Your task to perform on an android device: Open eBay Image 0: 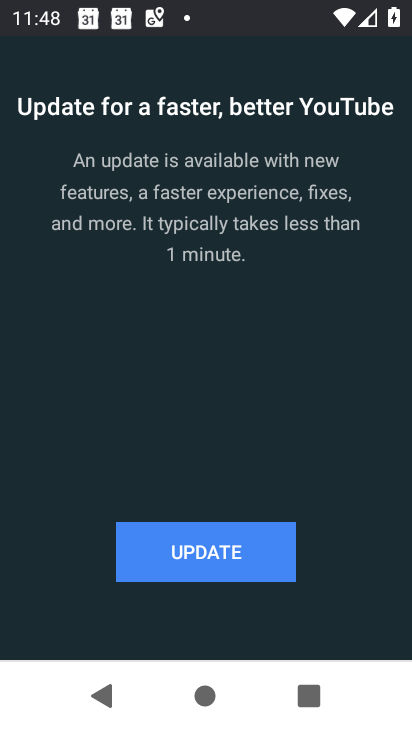
Step 0: press back button
Your task to perform on an android device: Open eBay Image 1: 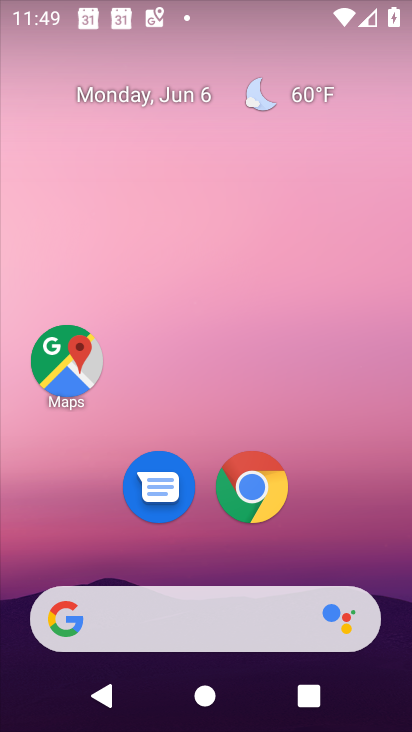
Step 1: click (260, 491)
Your task to perform on an android device: Open eBay Image 2: 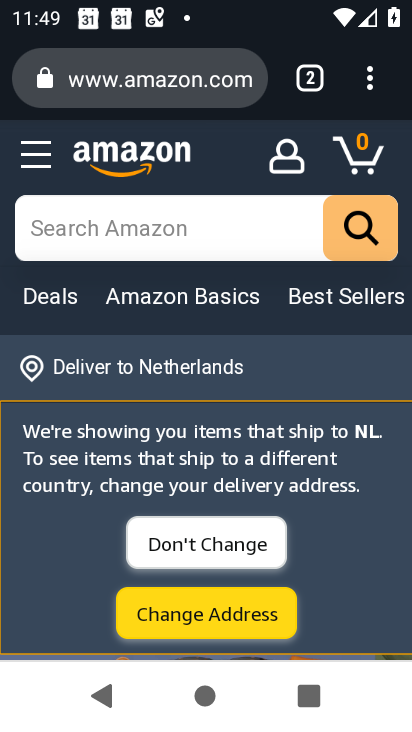
Step 2: click (315, 72)
Your task to perform on an android device: Open eBay Image 3: 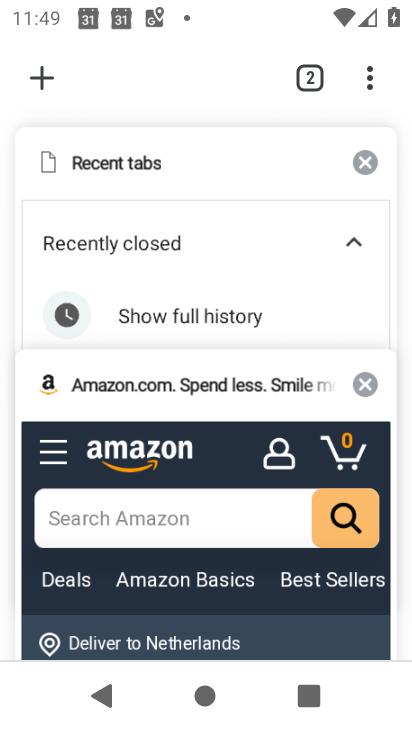
Step 3: click (52, 71)
Your task to perform on an android device: Open eBay Image 4: 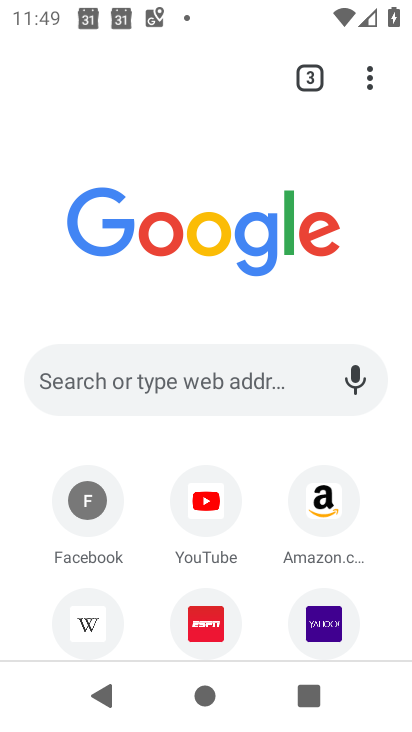
Step 4: click (248, 377)
Your task to perform on an android device: Open eBay Image 5: 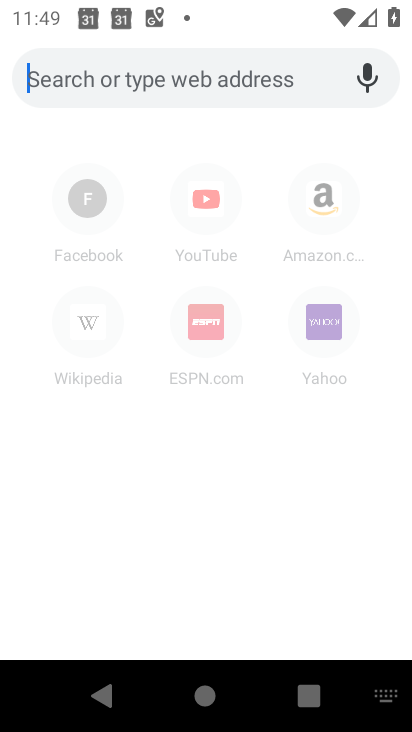
Step 5: type "eBay"
Your task to perform on an android device: Open eBay Image 6: 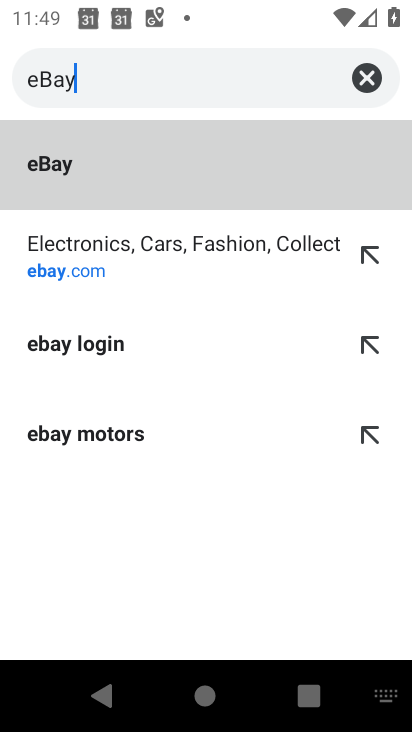
Step 6: click (92, 269)
Your task to perform on an android device: Open eBay Image 7: 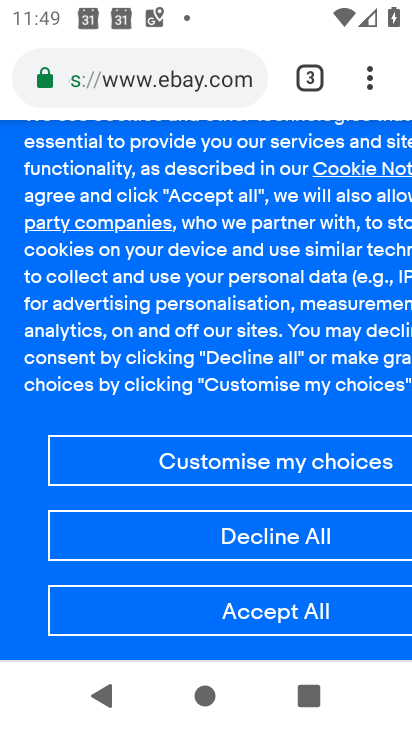
Step 7: task complete